Your task to perform on an android device: allow cookies in the chrome app Image 0: 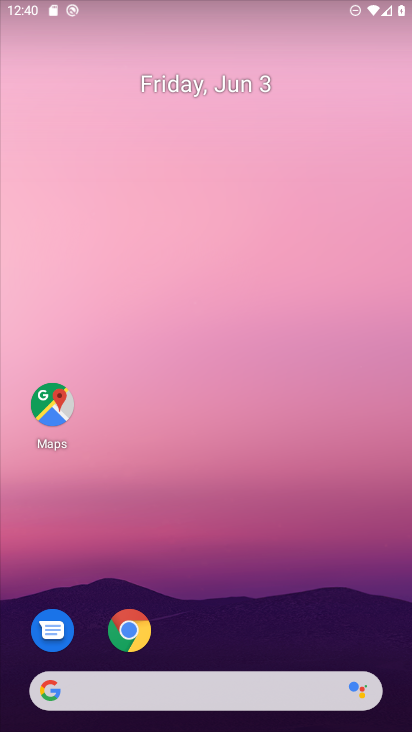
Step 0: drag from (237, 648) to (186, 99)
Your task to perform on an android device: allow cookies in the chrome app Image 1: 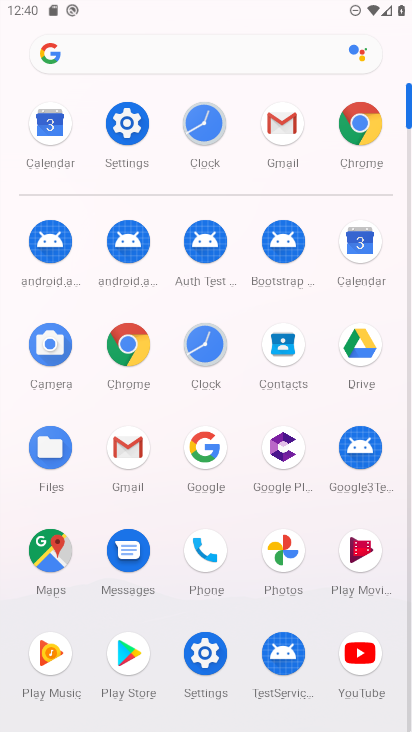
Step 1: click (368, 124)
Your task to perform on an android device: allow cookies in the chrome app Image 2: 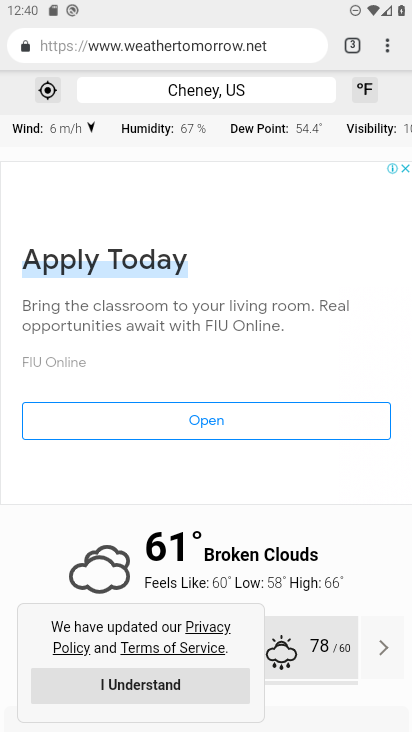
Step 2: click (388, 57)
Your task to perform on an android device: allow cookies in the chrome app Image 3: 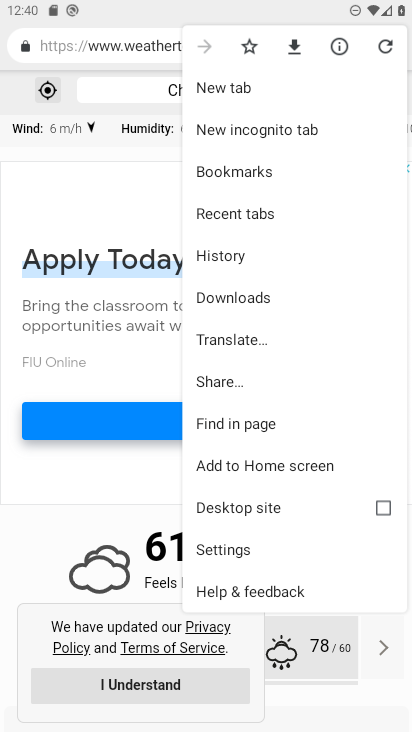
Step 3: click (281, 552)
Your task to perform on an android device: allow cookies in the chrome app Image 4: 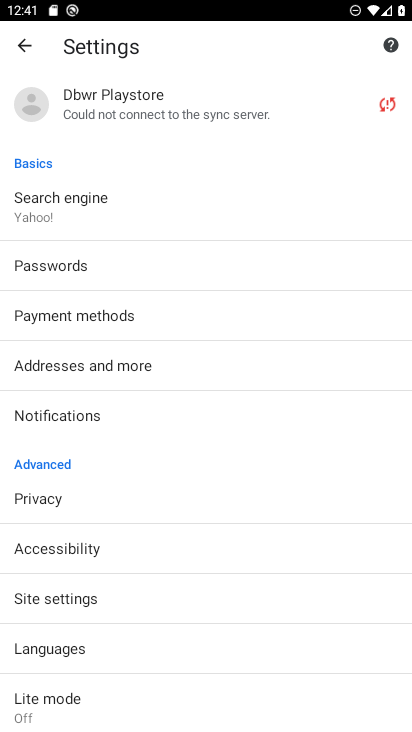
Step 4: drag from (195, 707) to (187, 449)
Your task to perform on an android device: allow cookies in the chrome app Image 5: 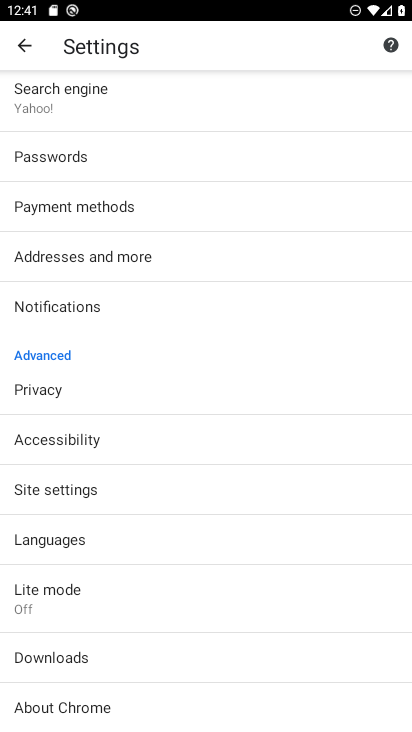
Step 5: click (179, 486)
Your task to perform on an android device: allow cookies in the chrome app Image 6: 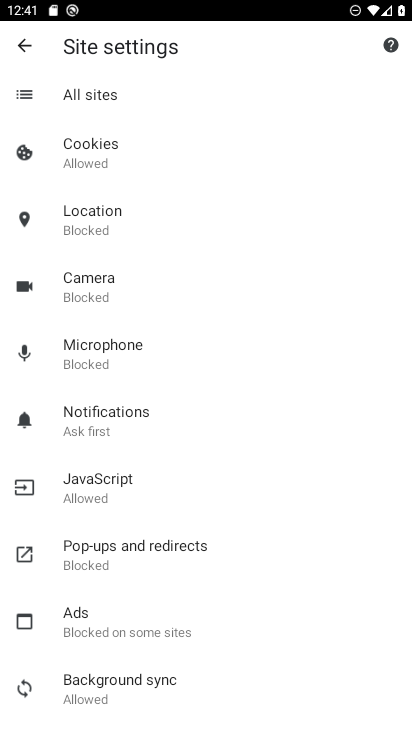
Step 6: click (145, 153)
Your task to perform on an android device: allow cookies in the chrome app Image 7: 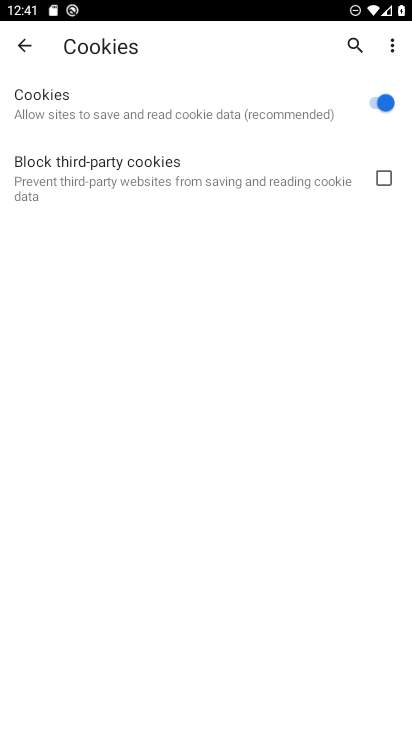
Step 7: task complete